Your task to perform on an android device: toggle notification dots Image 0: 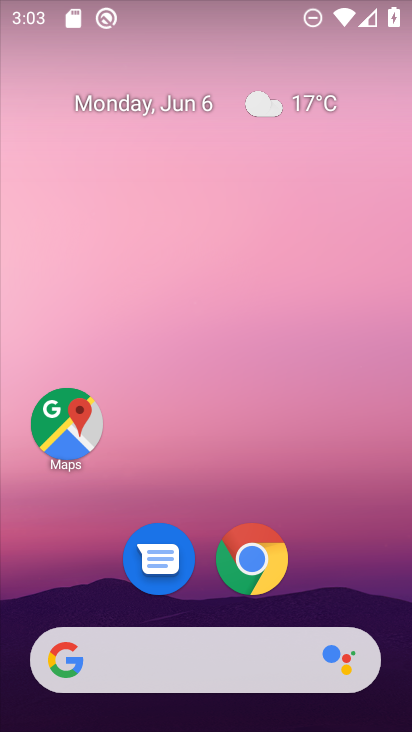
Step 0: drag from (359, 592) to (301, 200)
Your task to perform on an android device: toggle notification dots Image 1: 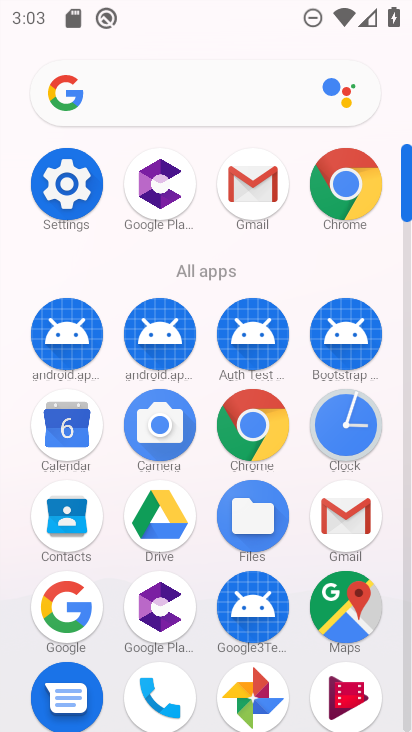
Step 1: click (57, 169)
Your task to perform on an android device: toggle notification dots Image 2: 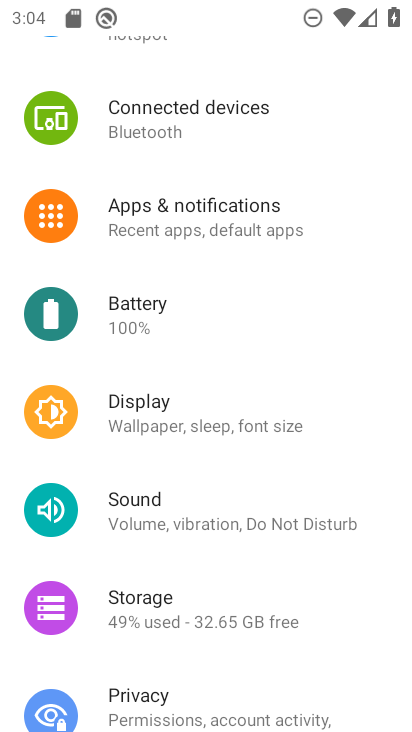
Step 2: drag from (199, 229) to (192, 442)
Your task to perform on an android device: toggle notification dots Image 3: 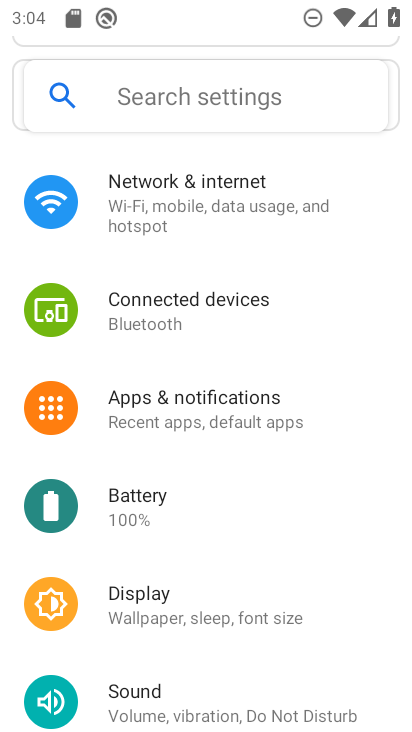
Step 3: click (232, 407)
Your task to perform on an android device: toggle notification dots Image 4: 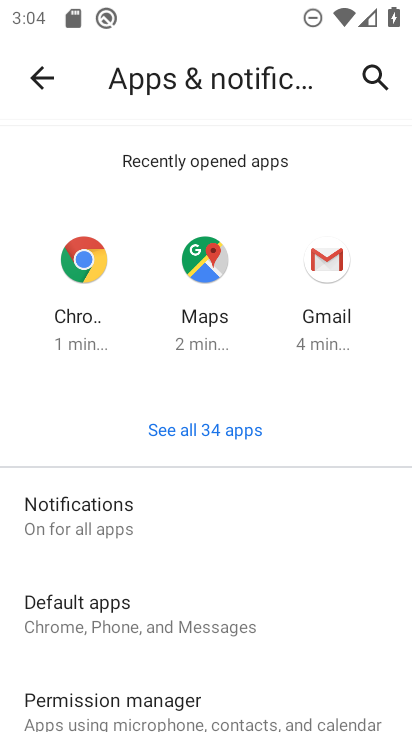
Step 4: click (231, 485)
Your task to perform on an android device: toggle notification dots Image 5: 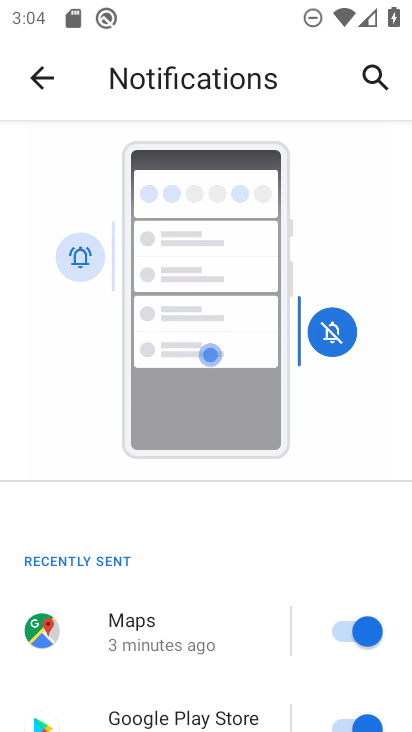
Step 5: drag from (217, 618) to (204, 287)
Your task to perform on an android device: toggle notification dots Image 6: 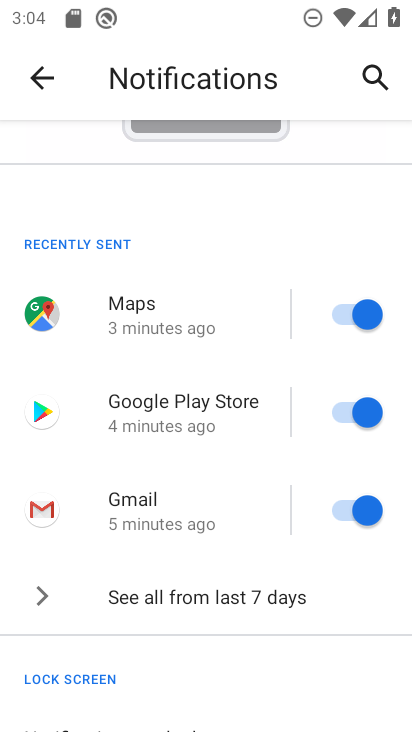
Step 6: drag from (217, 628) to (208, 254)
Your task to perform on an android device: toggle notification dots Image 7: 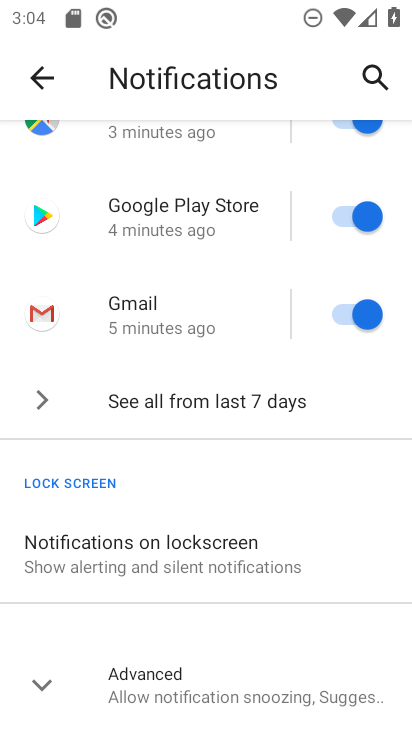
Step 7: click (240, 678)
Your task to perform on an android device: toggle notification dots Image 8: 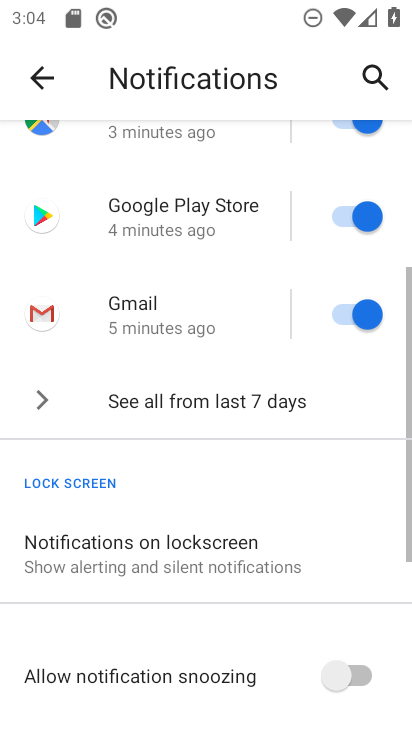
Step 8: drag from (240, 678) to (217, 417)
Your task to perform on an android device: toggle notification dots Image 9: 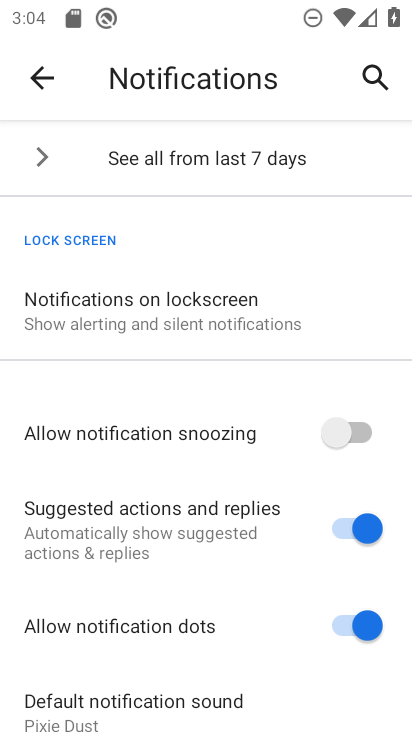
Step 9: click (345, 615)
Your task to perform on an android device: toggle notification dots Image 10: 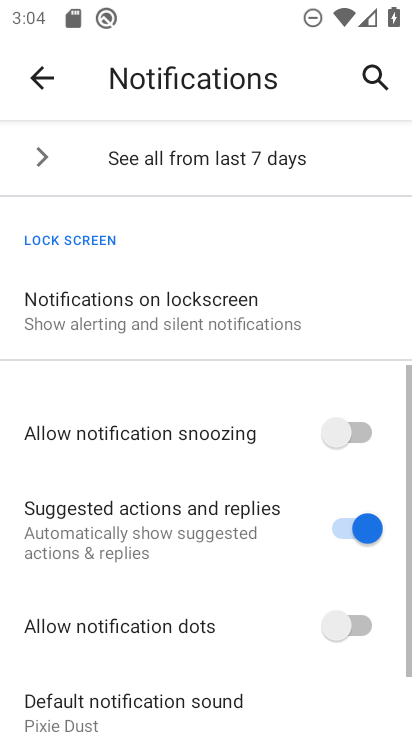
Step 10: task complete